Your task to perform on an android device: Where can I buy a nice beach tote? Image 0: 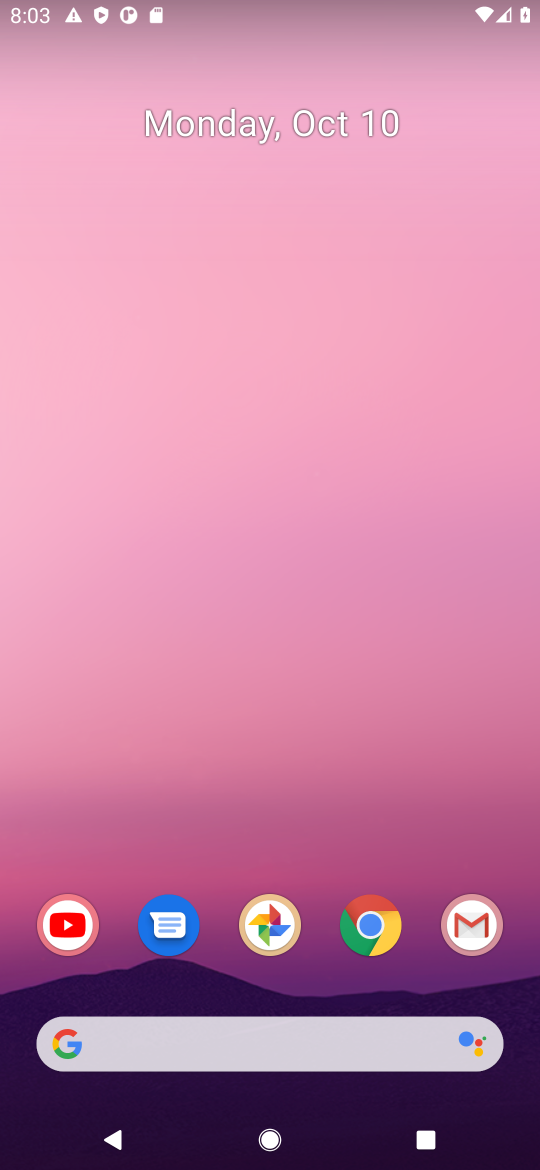
Step 0: drag from (314, 984) to (388, 241)
Your task to perform on an android device: Where can I buy a nice beach tote? Image 1: 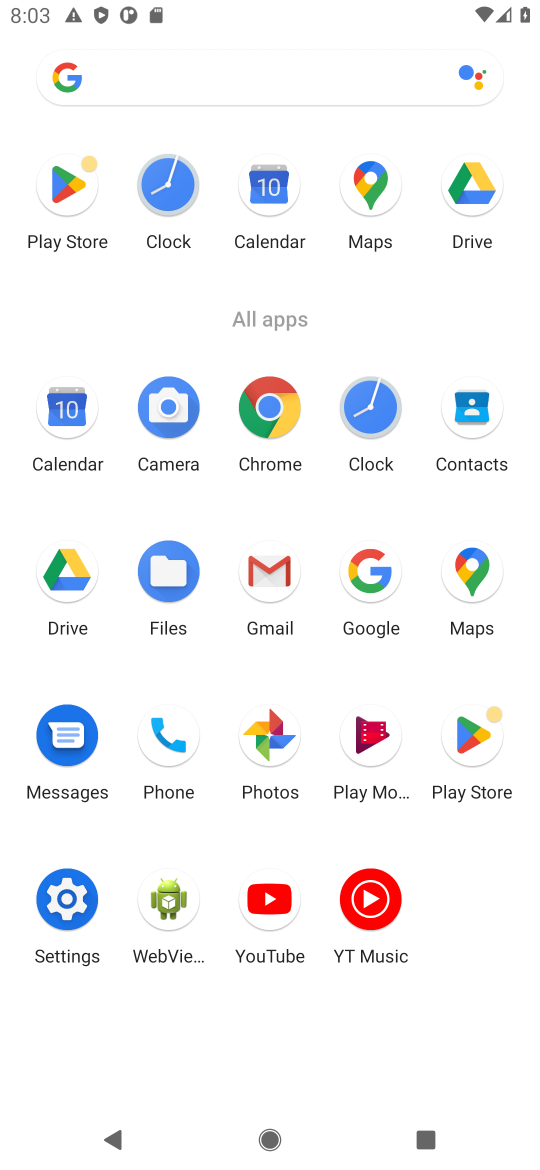
Step 1: click (262, 412)
Your task to perform on an android device: Where can I buy a nice beach tote? Image 2: 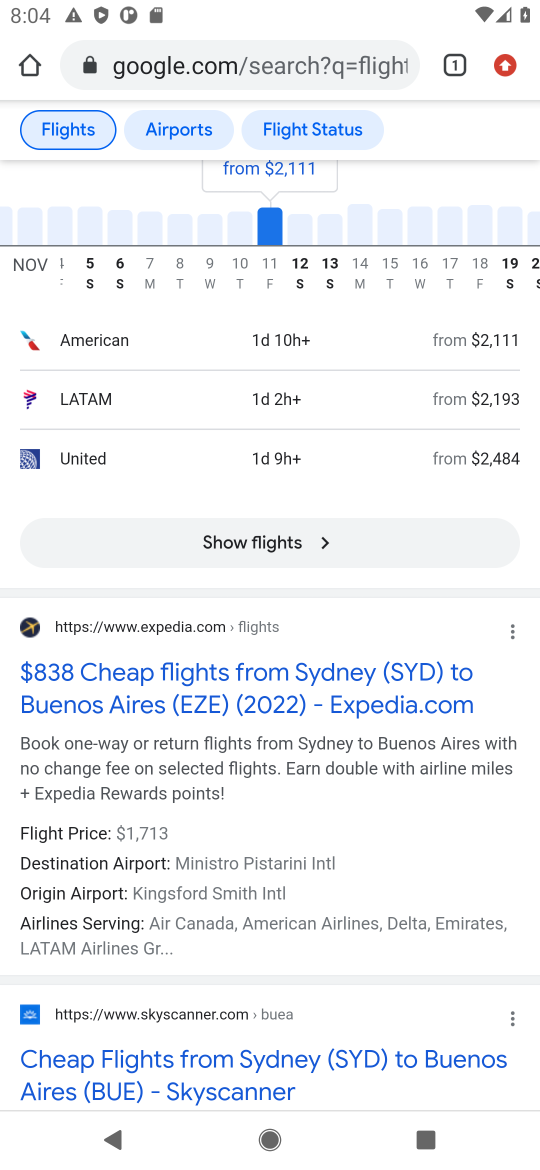
Step 2: click (242, 60)
Your task to perform on an android device: Where can I buy a nice beach tote? Image 3: 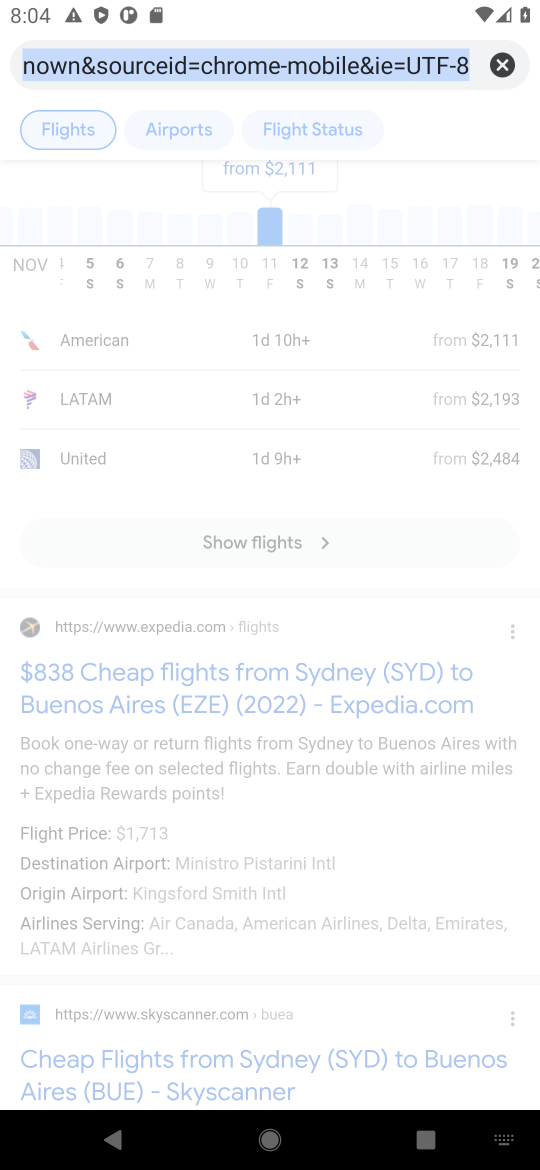
Step 3: type "Where can I buy a nice breach tote?"
Your task to perform on an android device: Where can I buy a nice beach tote? Image 4: 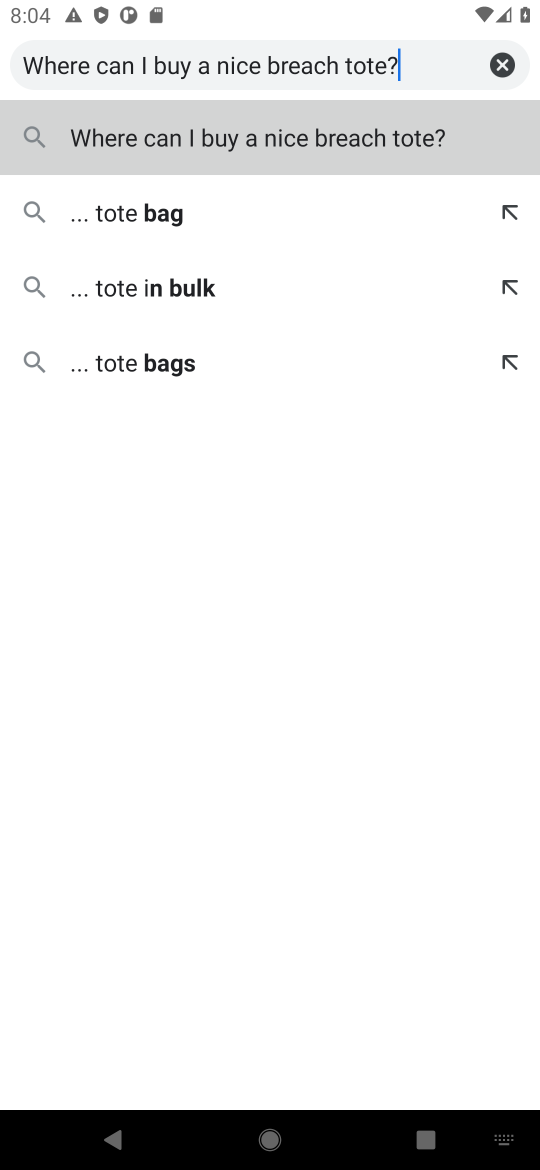
Step 4: press enter
Your task to perform on an android device: Where can I buy a nice beach tote? Image 5: 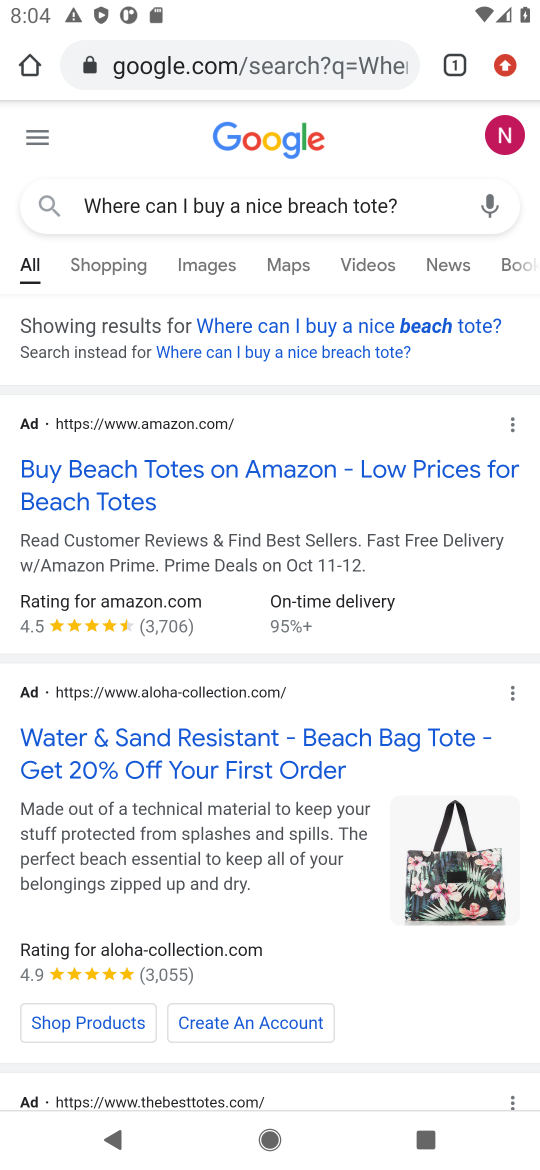
Step 5: task complete